Your task to perform on an android device: move an email to a new category in the gmail app Image 0: 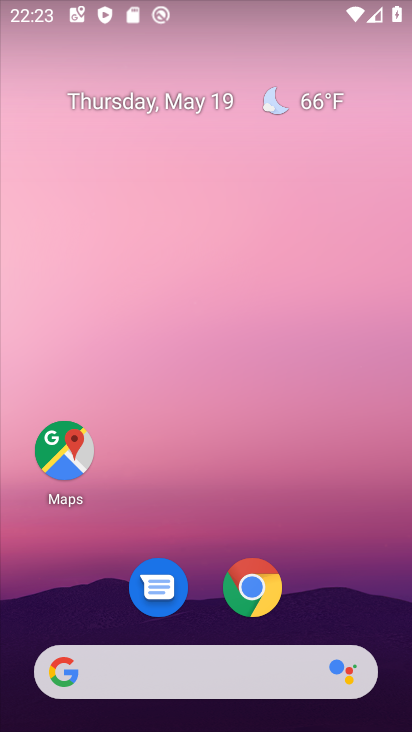
Step 0: drag from (350, 665) to (197, 178)
Your task to perform on an android device: move an email to a new category in the gmail app Image 1: 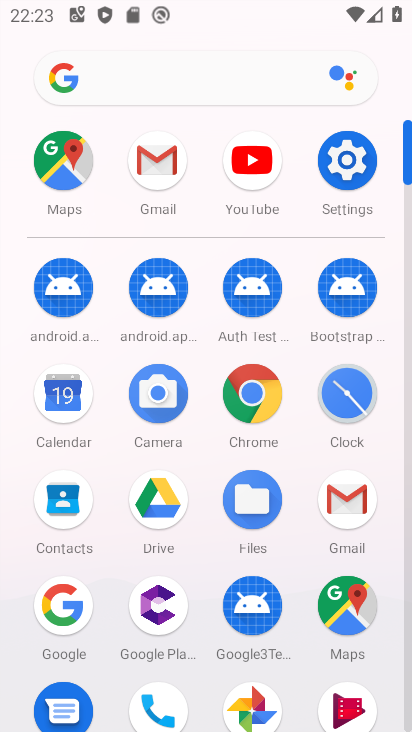
Step 1: click (328, 497)
Your task to perform on an android device: move an email to a new category in the gmail app Image 2: 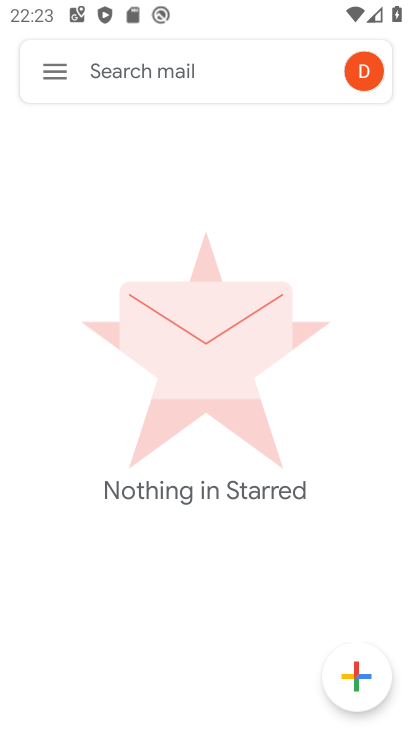
Step 2: click (56, 83)
Your task to perform on an android device: move an email to a new category in the gmail app Image 3: 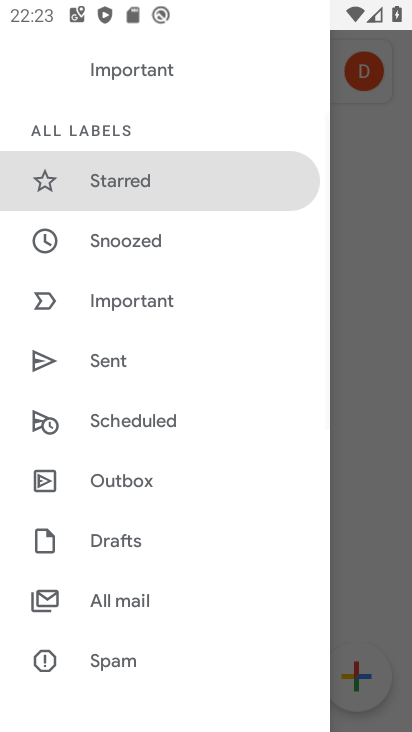
Step 3: drag from (165, 614) to (211, 196)
Your task to perform on an android device: move an email to a new category in the gmail app Image 4: 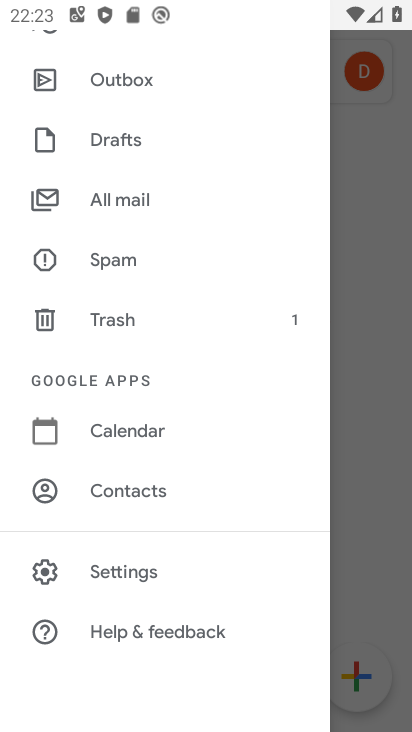
Step 4: click (137, 551)
Your task to perform on an android device: move an email to a new category in the gmail app Image 5: 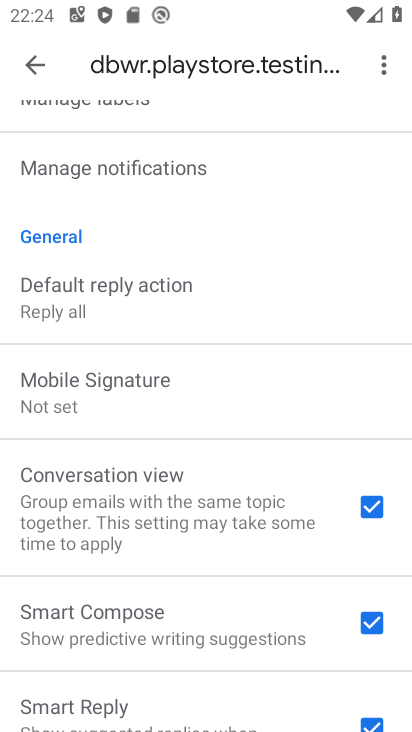
Step 5: drag from (138, 214) to (222, 442)
Your task to perform on an android device: move an email to a new category in the gmail app Image 6: 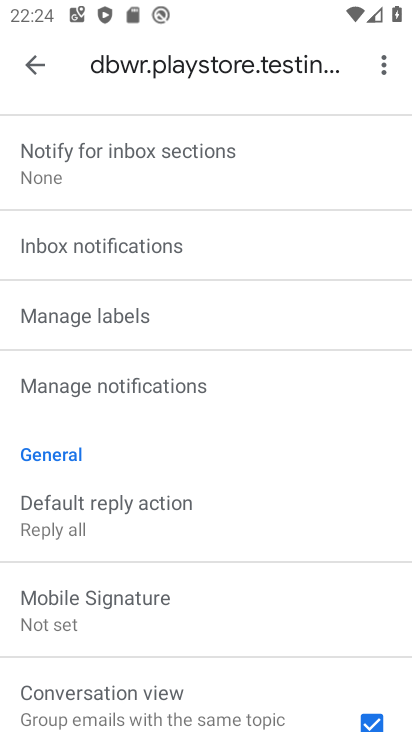
Step 6: drag from (175, 352) to (205, 419)
Your task to perform on an android device: move an email to a new category in the gmail app Image 7: 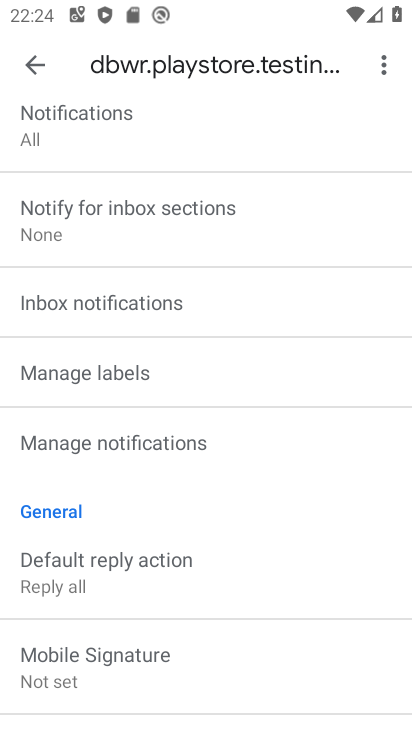
Step 7: drag from (89, 269) to (159, 437)
Your task to perform on an android device: move an email to a new category in the gmail app Image 8: 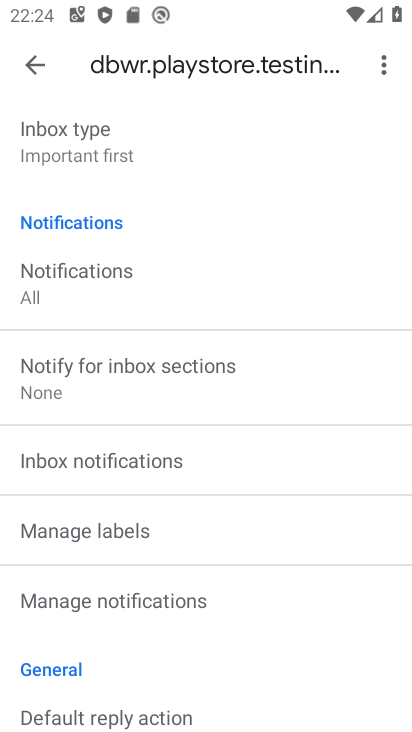
Step 8: drag from (94, 151) to (175, 356)
Your task to perform on an android device: move an email to a new category in the gmail app Image 9: 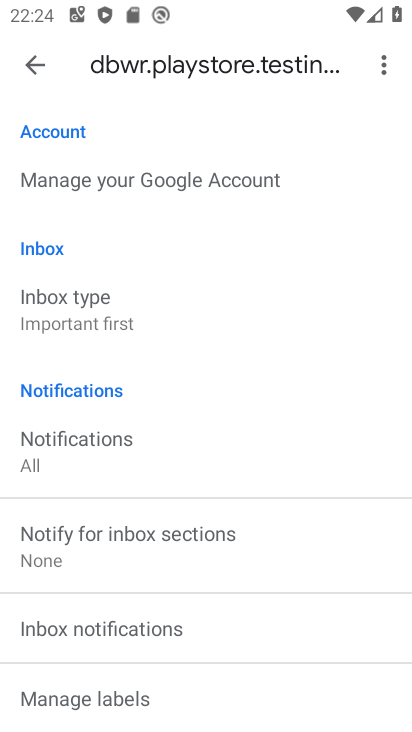
Step 9: click (148, 296)
Your task to perform on an android device: move an email to a new category in the gmail app Image 10: 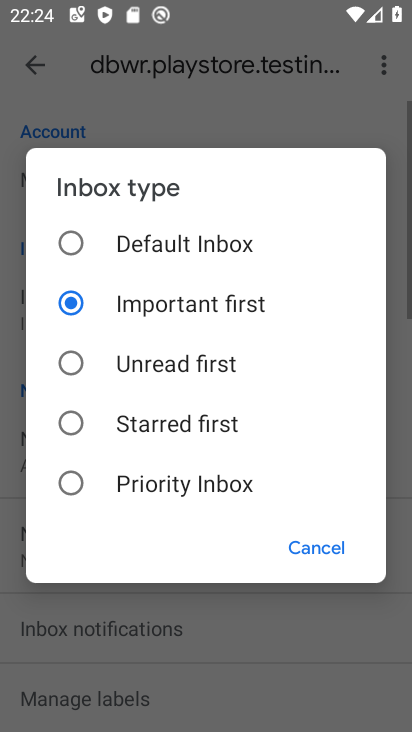
Step 10: click (144, 244)
Your task to perform on an android device: move an email to a new category in the gmail app Image 11: 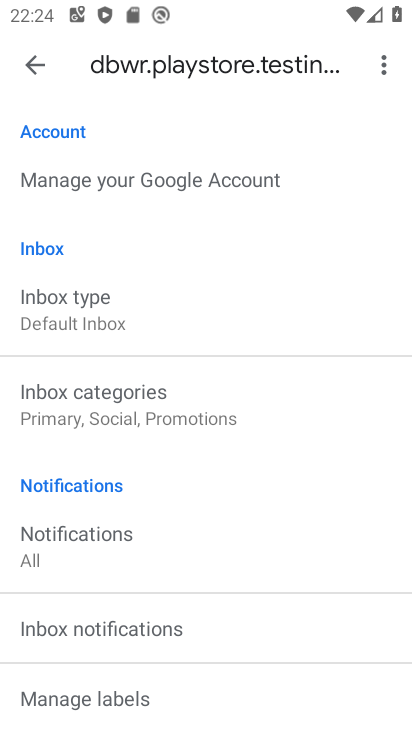
Step 11: click (152, 396)
Your task to perform on an android device: move an email to a new category in the gmail app Image 12: 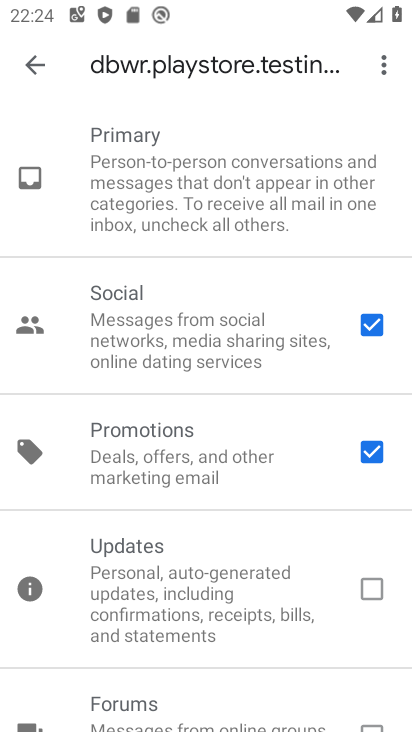
Step 12: task complete